Your task to perform on an android device: Show me the alarms in the clock app Image 0: 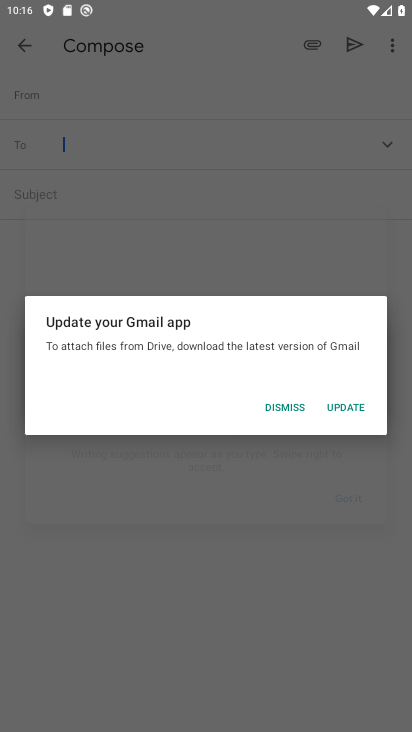
Step 0: press home button
Your task to perform on an android device: Show me the alarms in the clock app Image 1: 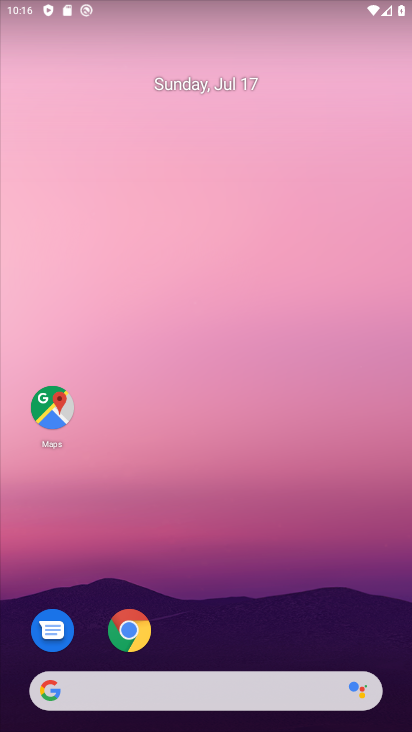
Step 1: drag from (365, 634) to (331, 154)
Your task to perform on an android device: Show me the alarms in the clock app Image 2: 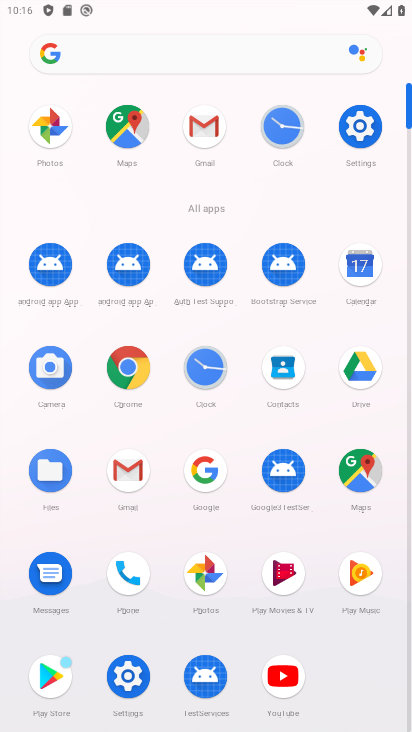
Step 2: click (204, 368)
Your task to perform on an android device: Show me the alarms in the clock app Image 3: 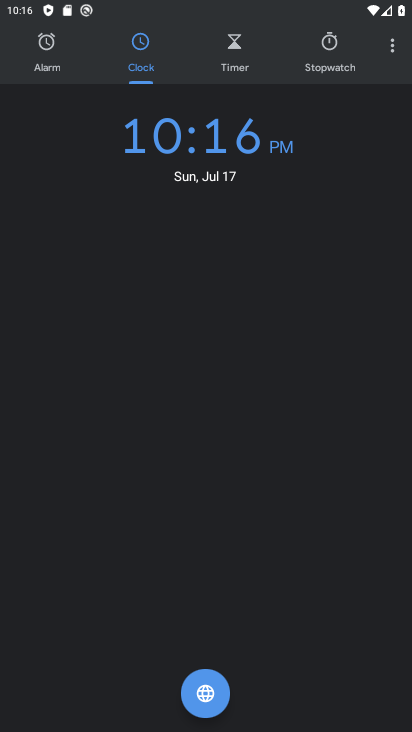
Step 3: click (391, 50)
Your task to perform on an android device: Show me the alarms in the clock app Image 4: 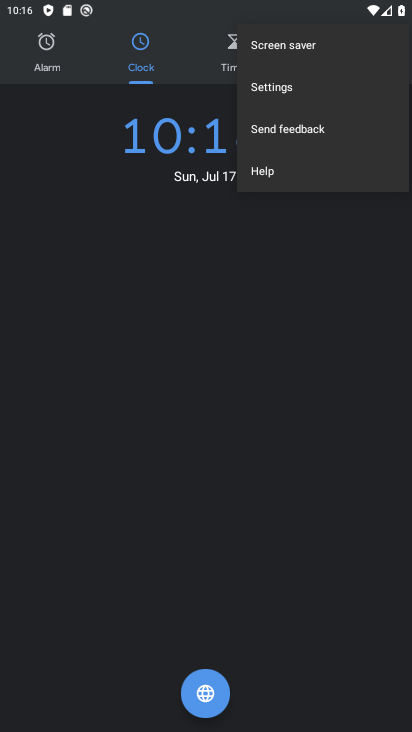
Step 4: click (337, 309)
Your task to perform on an android device: Show me the alarms in the clock app Image 5: 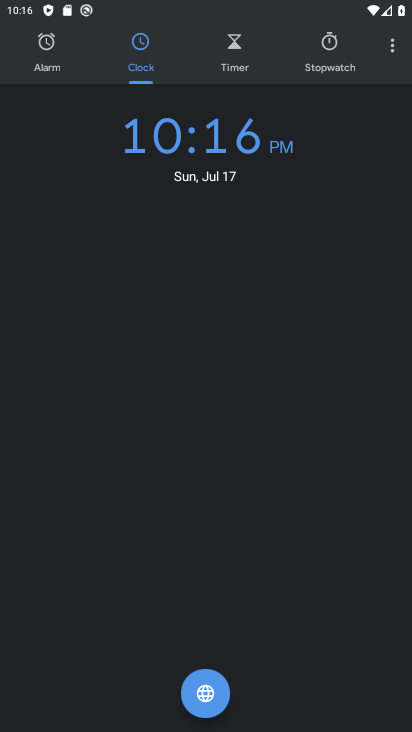
Step 5: click (48, 43)
Your task to perform on an android device: Show me the alarms in the clock app Image 6: 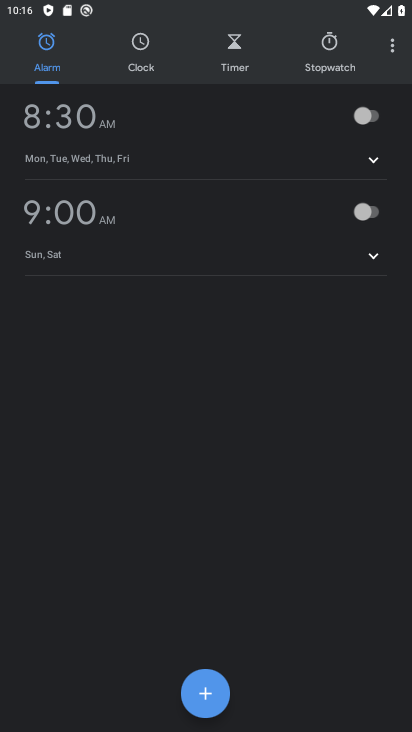
Step 6: task complete